Your task to perform on an android device: Open Chrome and go to settings Image 0: 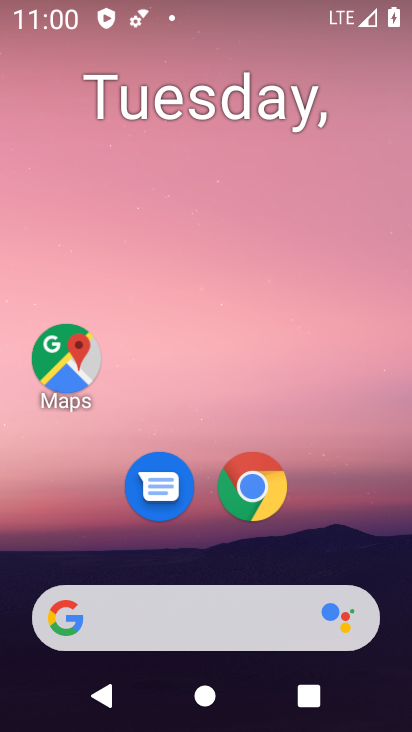
Step 0: drag from (342, 537) to (379, 145)
Your task to perform on an android device: Open Chrome and go to settings Image 1: 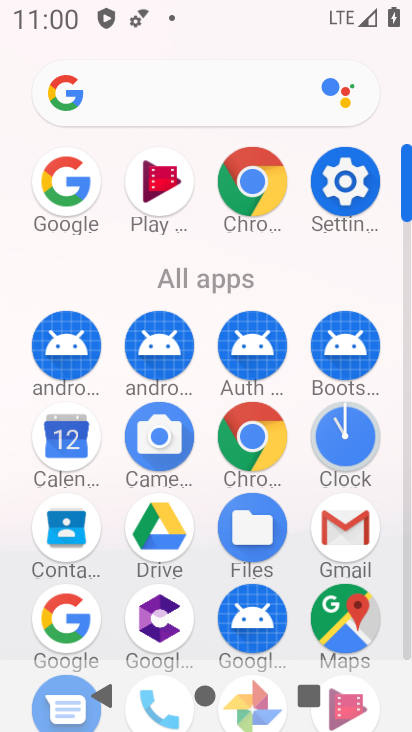
Step 1: click (267, 436)
Your task to perform on an android device: Open Chrome and go to settings Image 2: 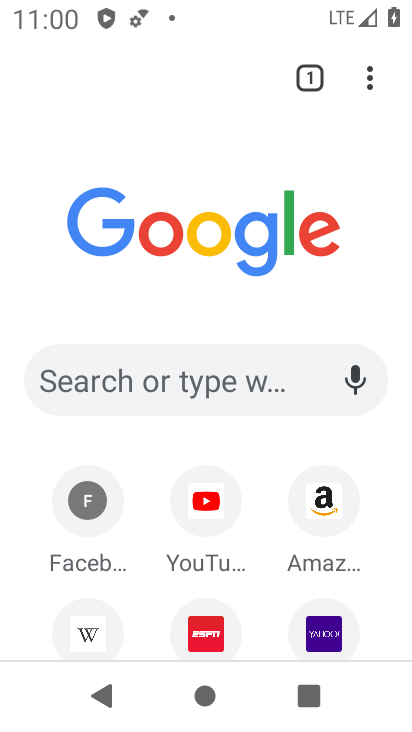
Step 2: click (372, 88)
Your task to perform on an android device: Open Chrome and go to settings Image 3: 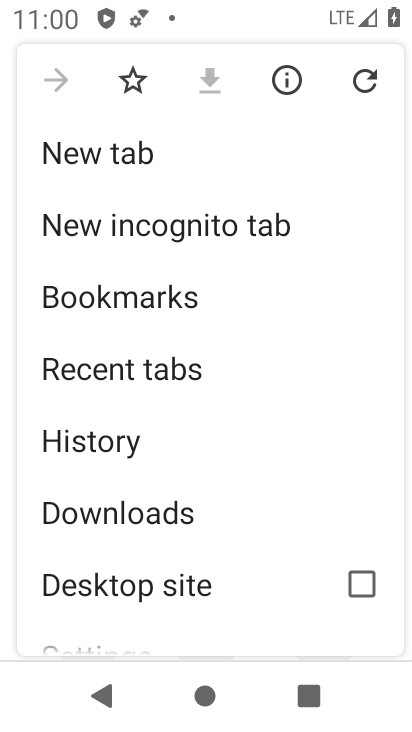
Step 3: drag from (308, 369) to (277, 327)
Your task to perform on an android device: Open Chrome and go to settings Image 4: 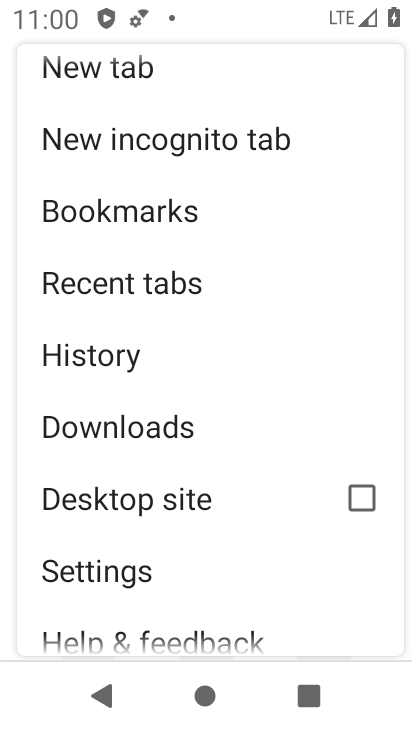
Step 4: drag from (270, 449) to (278, 299)
Your task to perform on an android device: Open Chrome and go to settings Image 5: 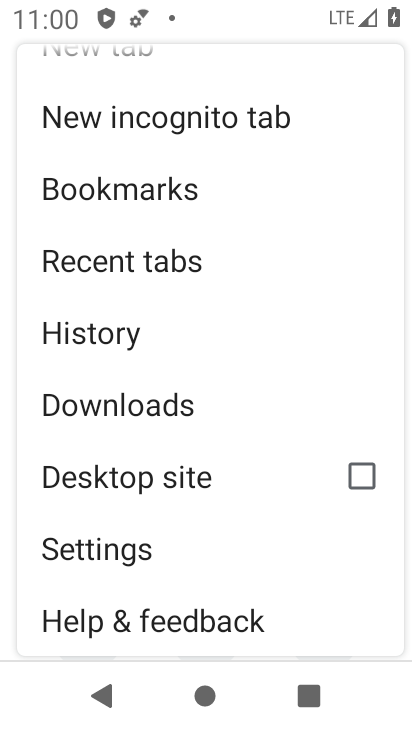
Step 5: click (218, 556)
Your task to perform on an android device: Open Chrome and go to settings Image 6: 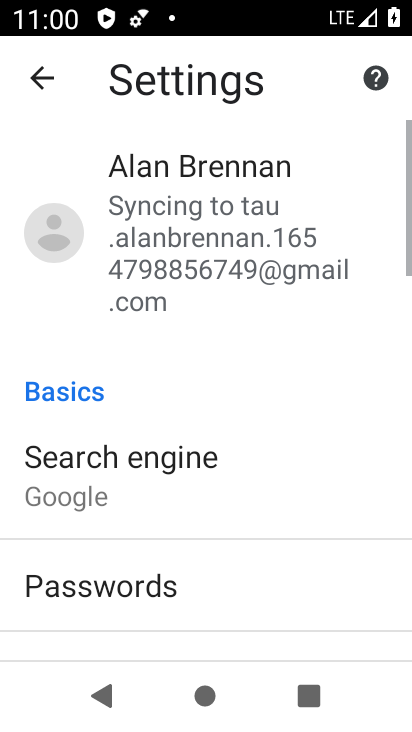
Step 6: task complete